Your task to perform on an android device: turn on priority inbox in the gmail app Image 0: 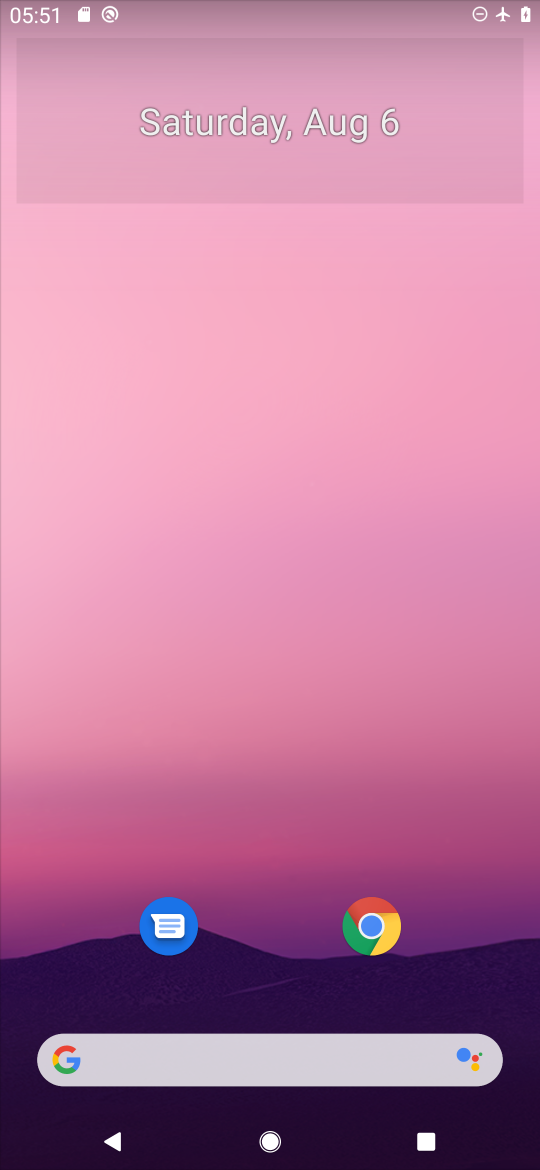
Step 0: drag from (265, 932) to (263, 231)
Your task to perform on an android device: turn on priority inbox in the gmail app Image 1: 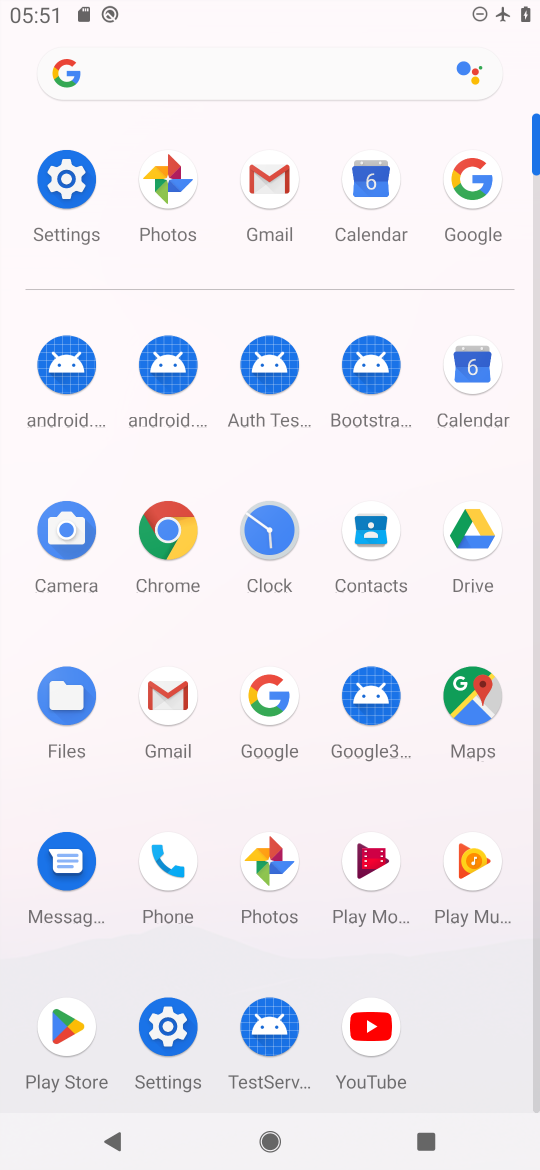
Step 1: click (242, 205)
Your task to perform on an android device: turn on priority inbox in the gmail app Image 2: 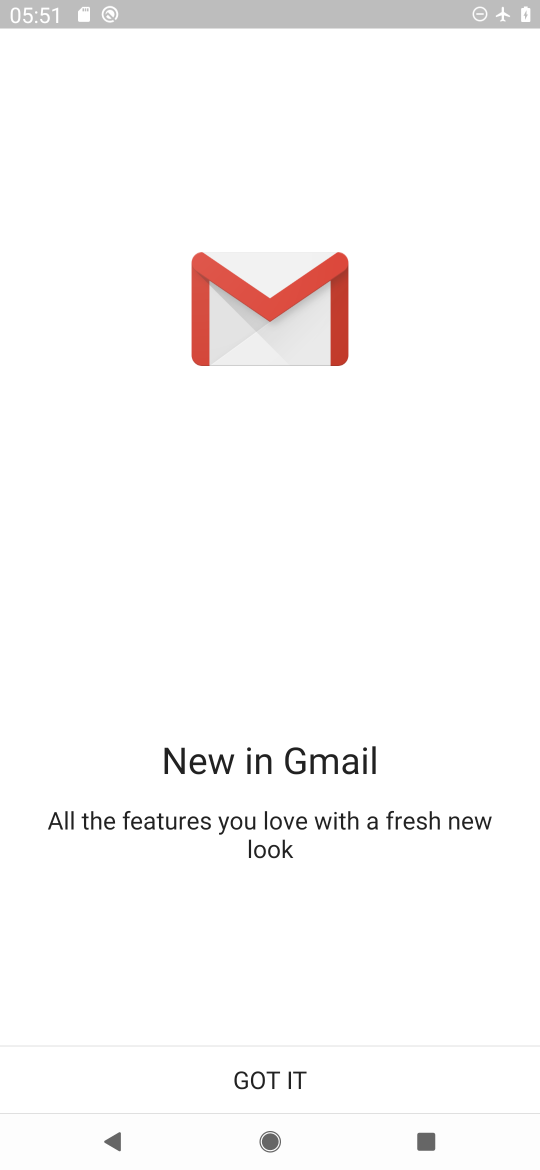
Step 2: click (359, 1051)
Your task to perform on an android device: turn on priority inbox in the gmail app Image 3: 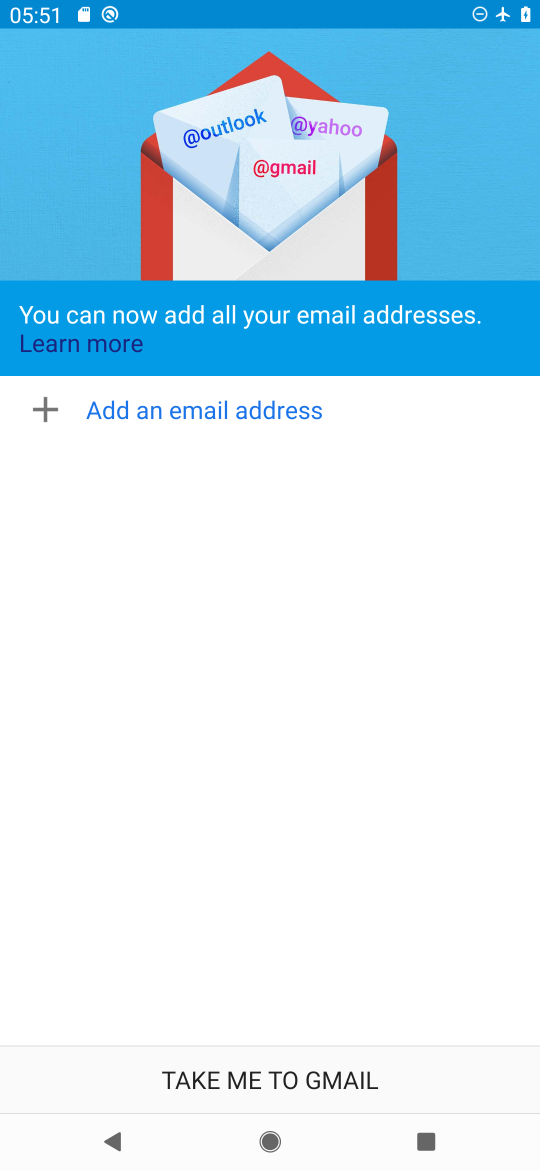
Step 3: click (359, 1051)
Your task to perform on an android device: turn on priority inbox in the gmail app Image 4: 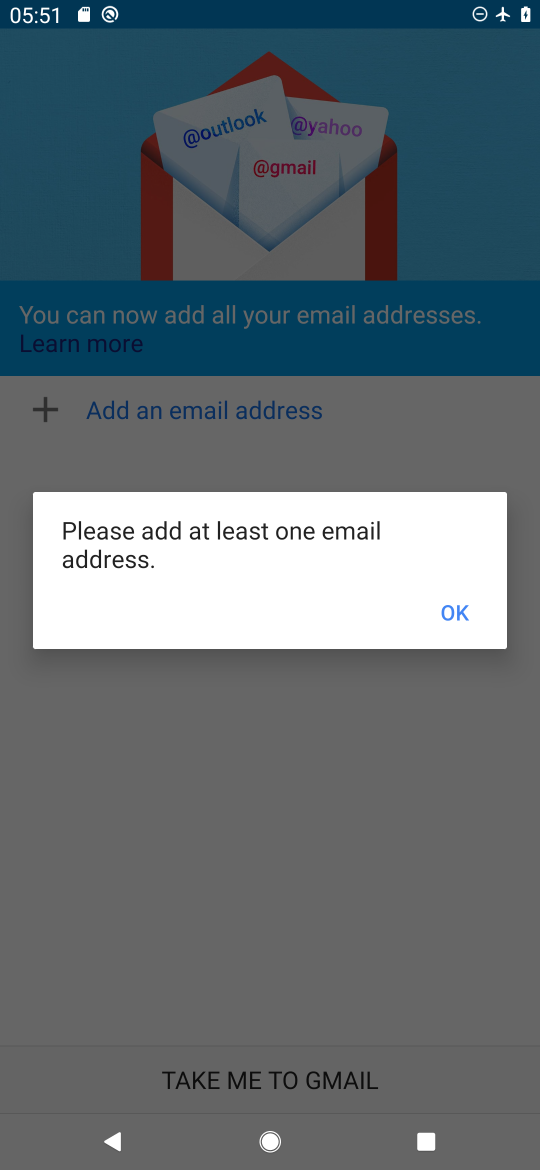
Step 4: task complete